Your task to perform on an android device: Open calendar and show me the third week of next month Image 0: 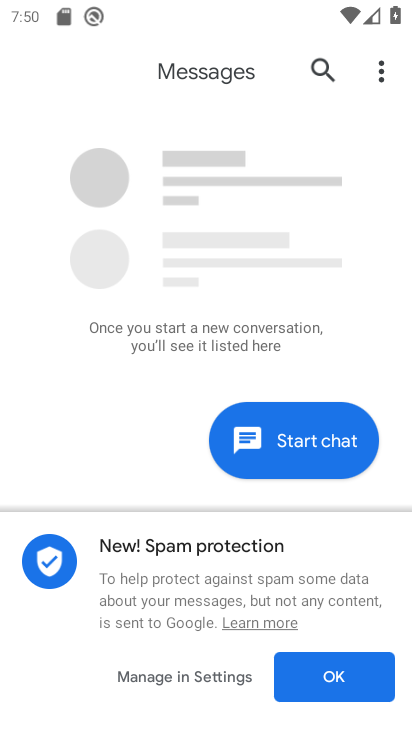
Step 0: drag from (213, 442) to (230, 141)
Your task to perform on an android device: Open calendar and show me the third week of next month Image 1: 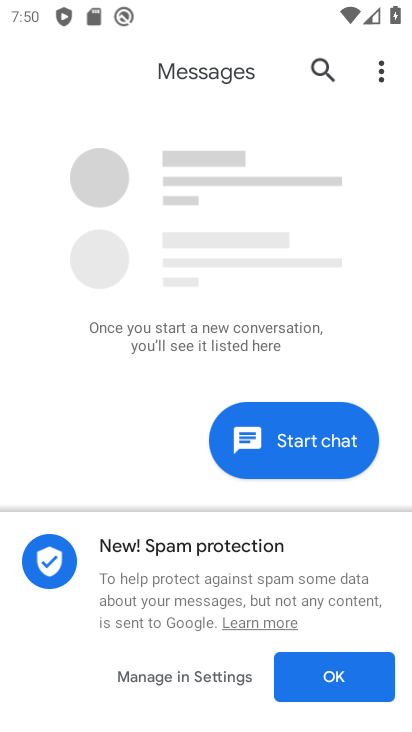
Step 1: press back button
Your task to perform on an android device: Open calendar and show me the third week of next month Image 2: 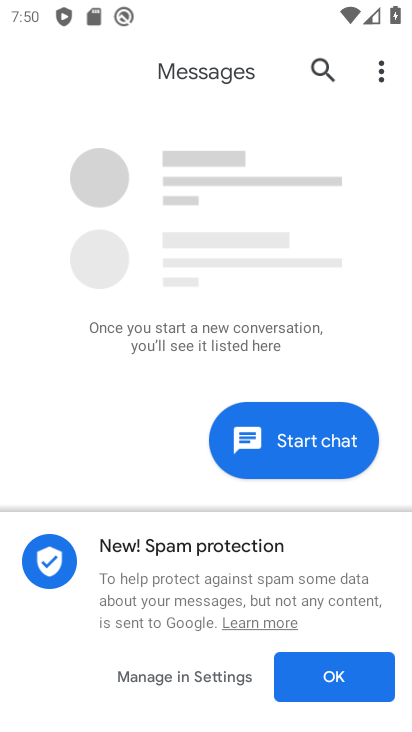
Step 2: press back button
Your task to perform on an android device: Open calendar and show me the third week of next month Image 3: 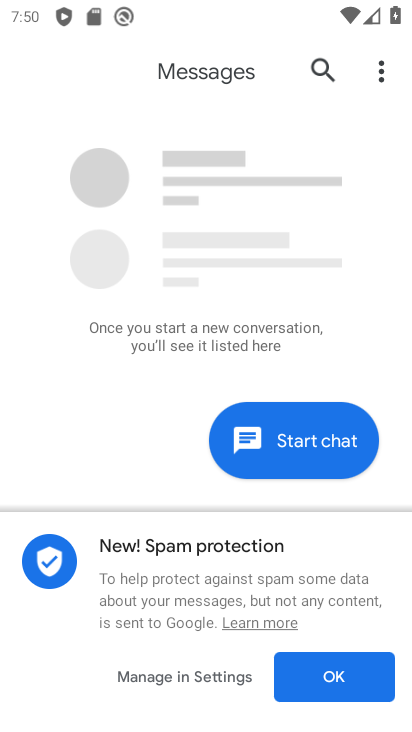
Step 3: press home button
Your task to perform on an android device: Open calendar and show me the third week of next month Image 4: 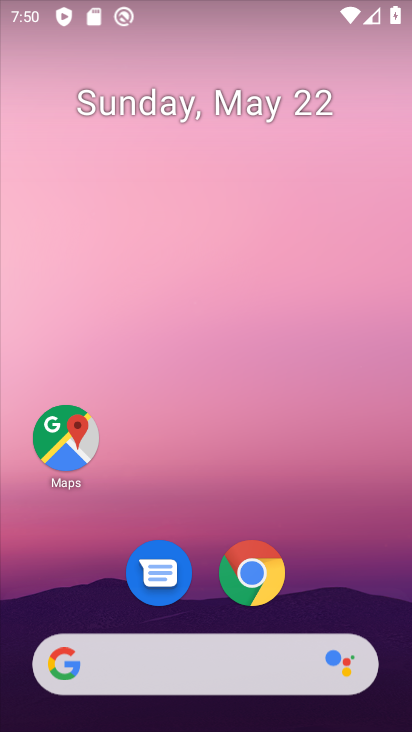
Step 4: press home button
Your task to perform on an android device: Open calendar and show me the third week of next month Image 5: 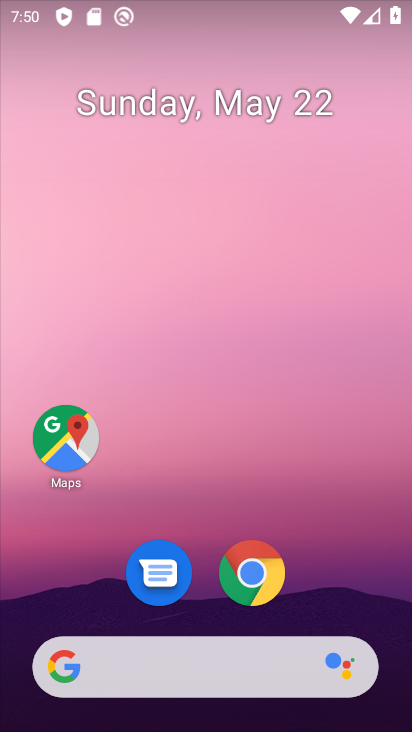
Step 5: drag from (199, 608) to (218, 55)
Your task to perform on an android device: Open calendar and show me the third week of next month Image 6: 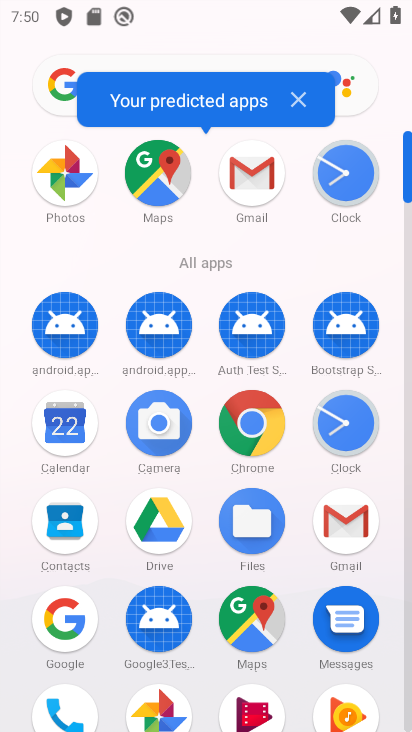
Step 6: click (64, 435)
Your task to perform on an android device: Open calendar and show me the third week of next month Image 7: 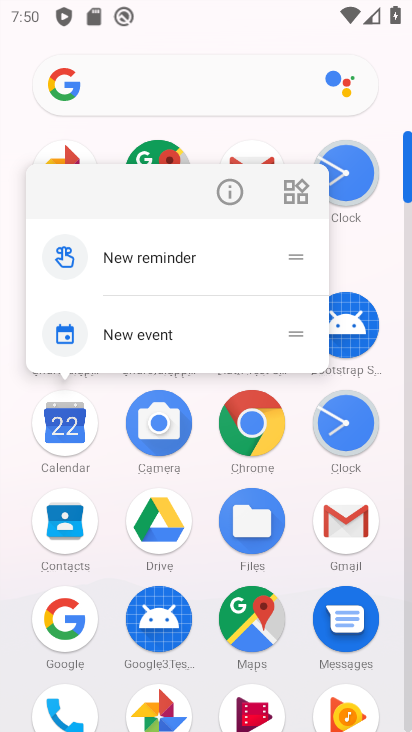
Step 7: click (222, 184)
Your task to perform on an android device: Open calendar and show me the third week of next month Image 8: 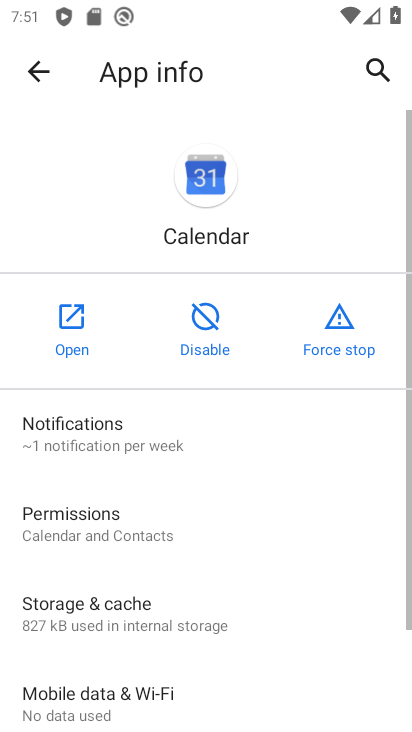
Step 8: click (62, 337)
Your task to perform on an android device: Open calendar and show me the third week of next month Image 9: 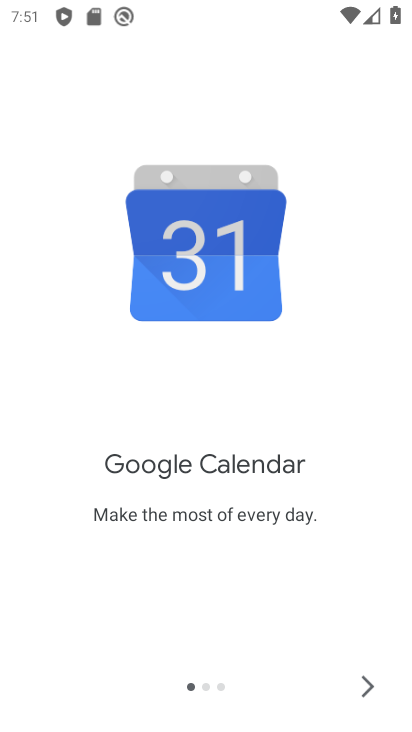
Step 9: click (371, 690)
Your task to perform on an android device: Open calendar and show me the third week of next month Image 10: 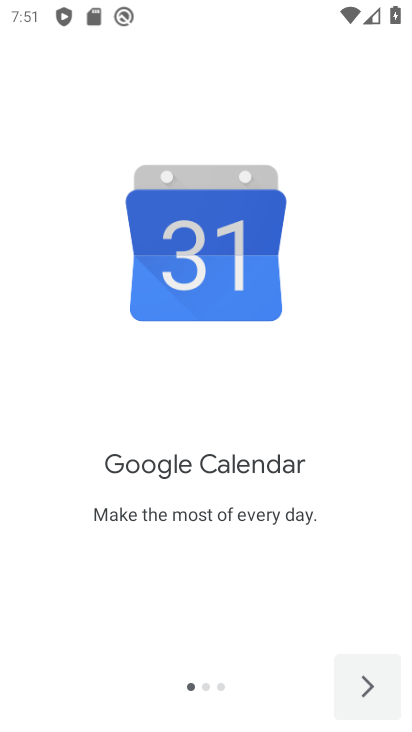
Step 10: click (371, 690)
Your task to perform on an android device: Open calendar and show me the third week of next month Image 11: 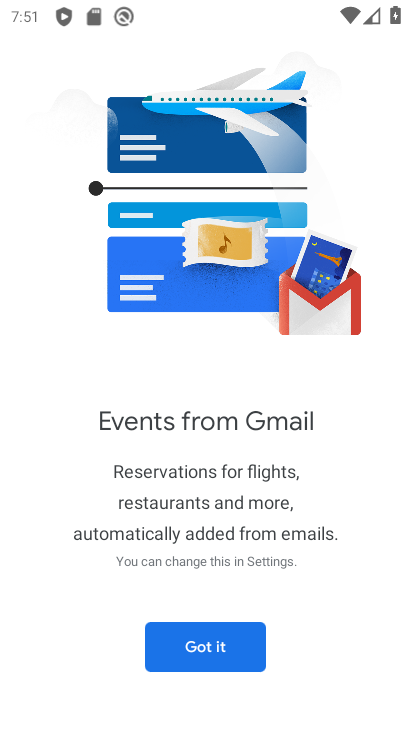
Step 11: click (371, 690)
Your task to perform on an android device: Open calendar and show me the third week of next month Image 12: 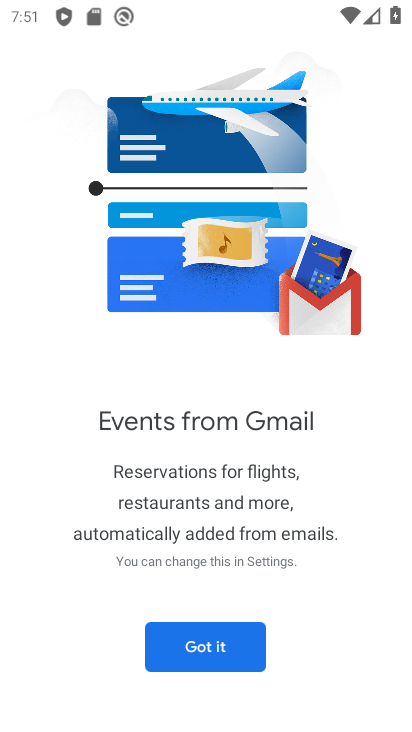
Step 12: click (153, 653)
Your task to perform on an android device: Open calendar and show me the third week of next month Image 13: 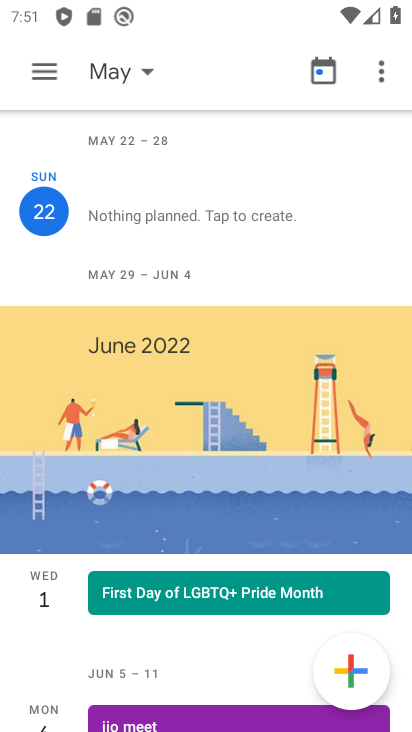
Step 13: click (117, 70)
Your task to perform on an android device: Open calendar and show me the third week of next month Image 14: 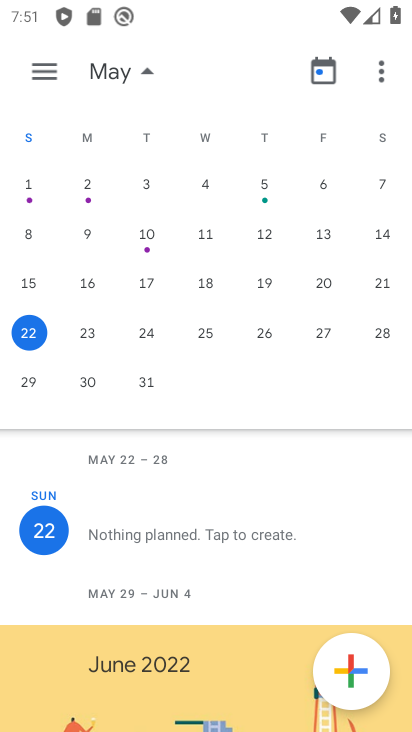
Step 14: drag from (362, 284) to (31, 342)
Your task to perform on an android device: Open calendar and show me the third week of next month Image 15: 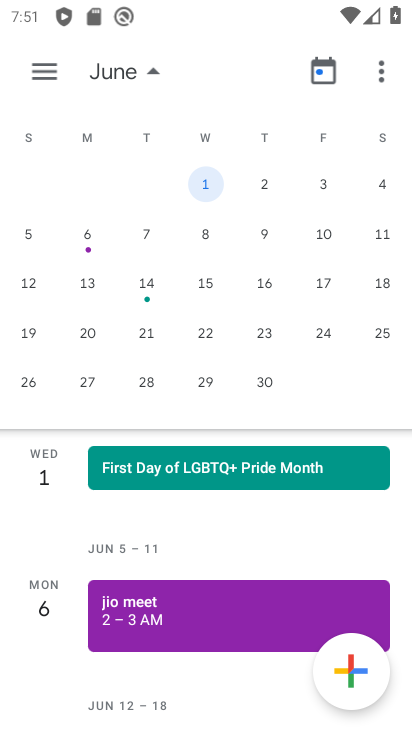
Step 15: click (266, 284)
Your task to perform on an android device: Open calendar and show me the third week of next month Image 16: 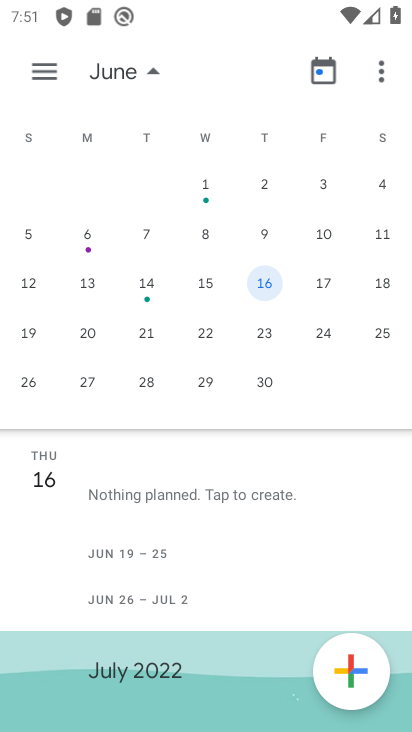
Step 16: task complete